Your task to perform on an android device: check out phone information Image 0: 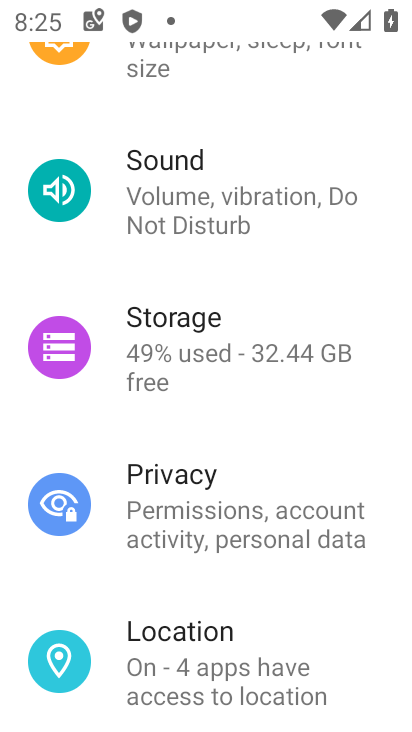
Step 0: drag from (254, 433) to (232, 29)
Your task to perform on an android device: check out phone information Image 1: 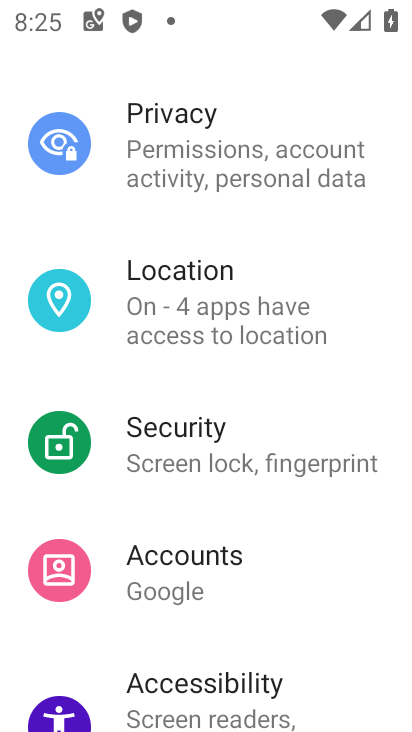
Step 1: drag from (269, 572) to (214, 86)
Your task to perform on an android device: check out phone information Image 2: 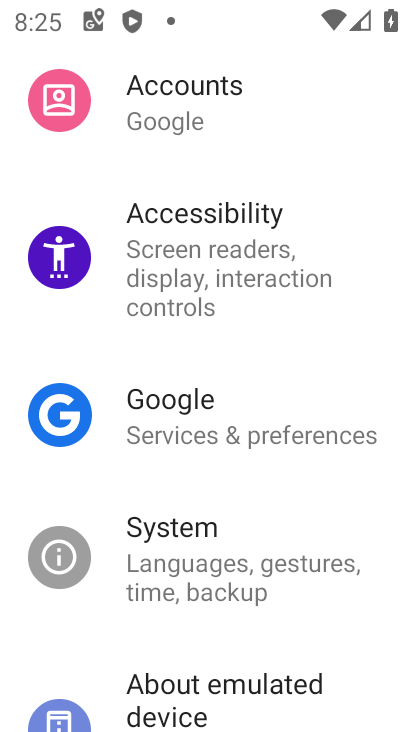
Step 2: click (277, 593)
Your task to perform on an android device: check out phone information Image 3: 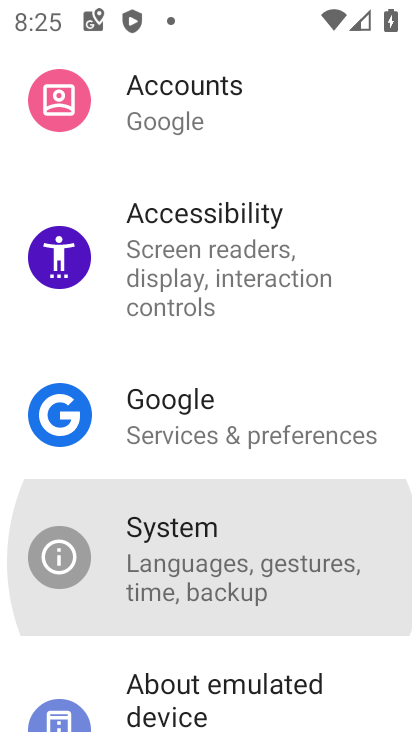
Step 3: drag from (277, 593) to (177, 98)
Your task to perform on an android device: check out phone information Image 4: 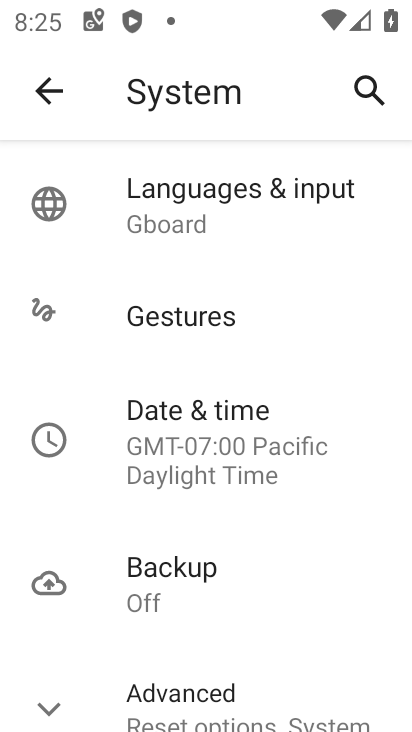
Step 4: click (48, 89)
Your task to perform on an android device: check out phone information Image 5: 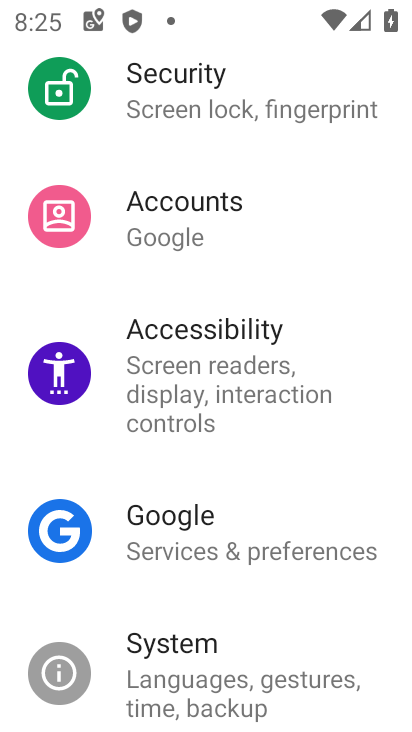
Step 5: drag from (255, 470) to (265, 57)
Your task to perform on an android device: check out phone information Image 6: 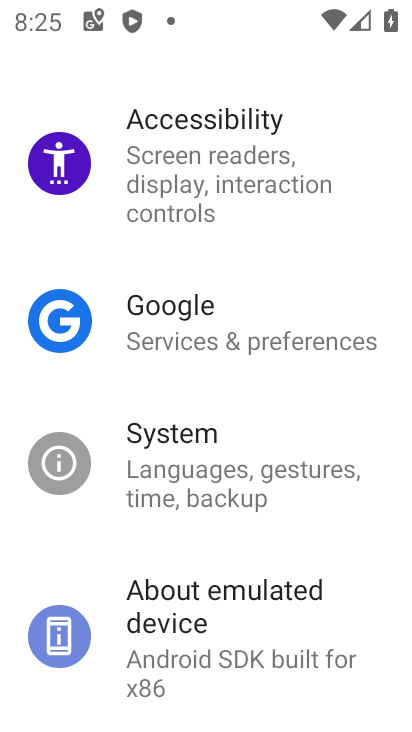
Step 6: click (175, 627)
Your task to perform on an android device: check out phone information Image 7: 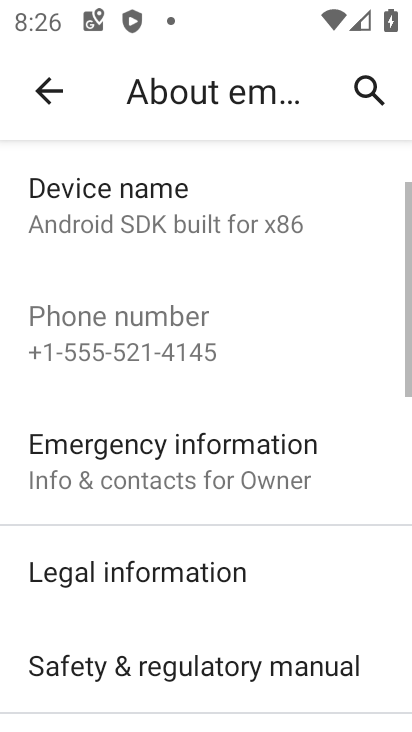
Step 7: task complete